Your task to perform on an android device: install app "VLC for Android" Image 0: 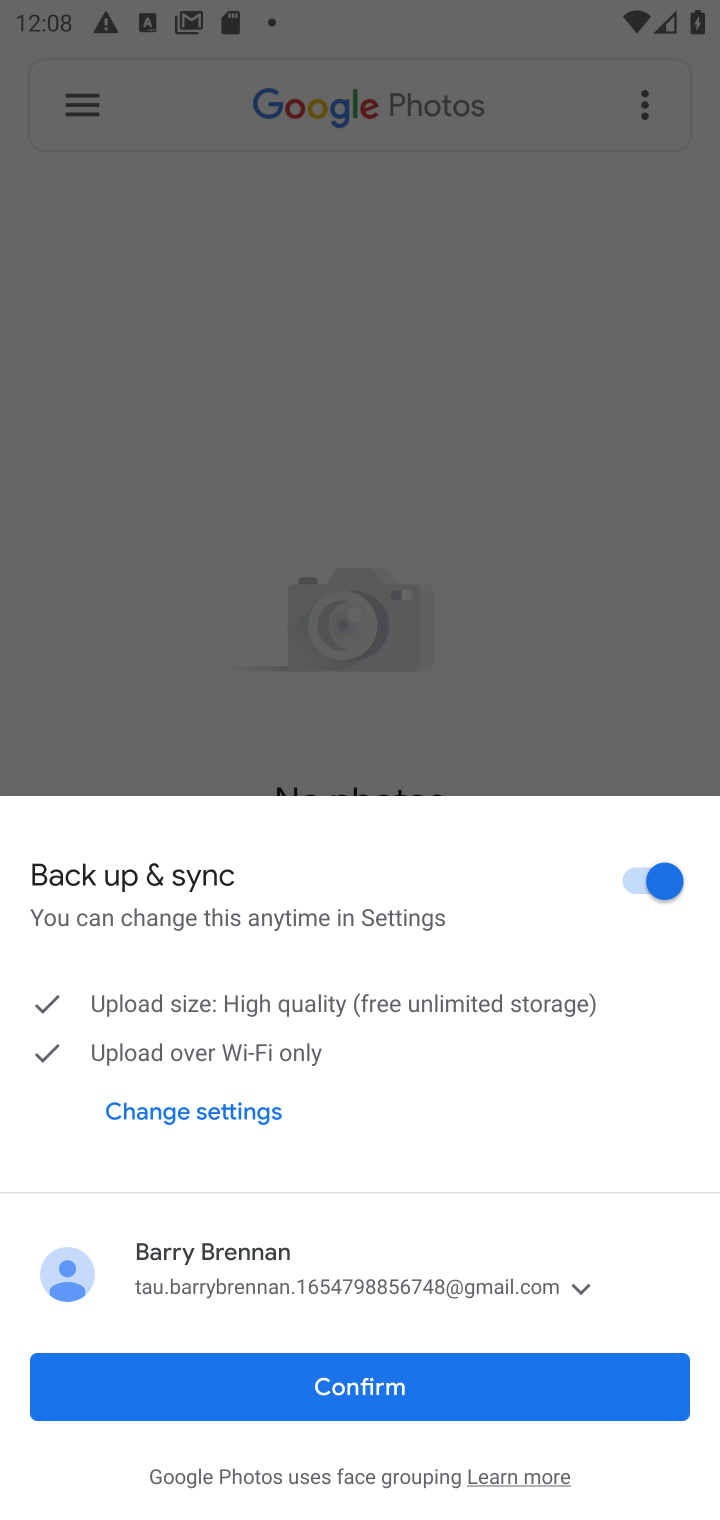
Step 0: press home button
Your task to perform on an android device: install app "VLC for Android" Image 1: 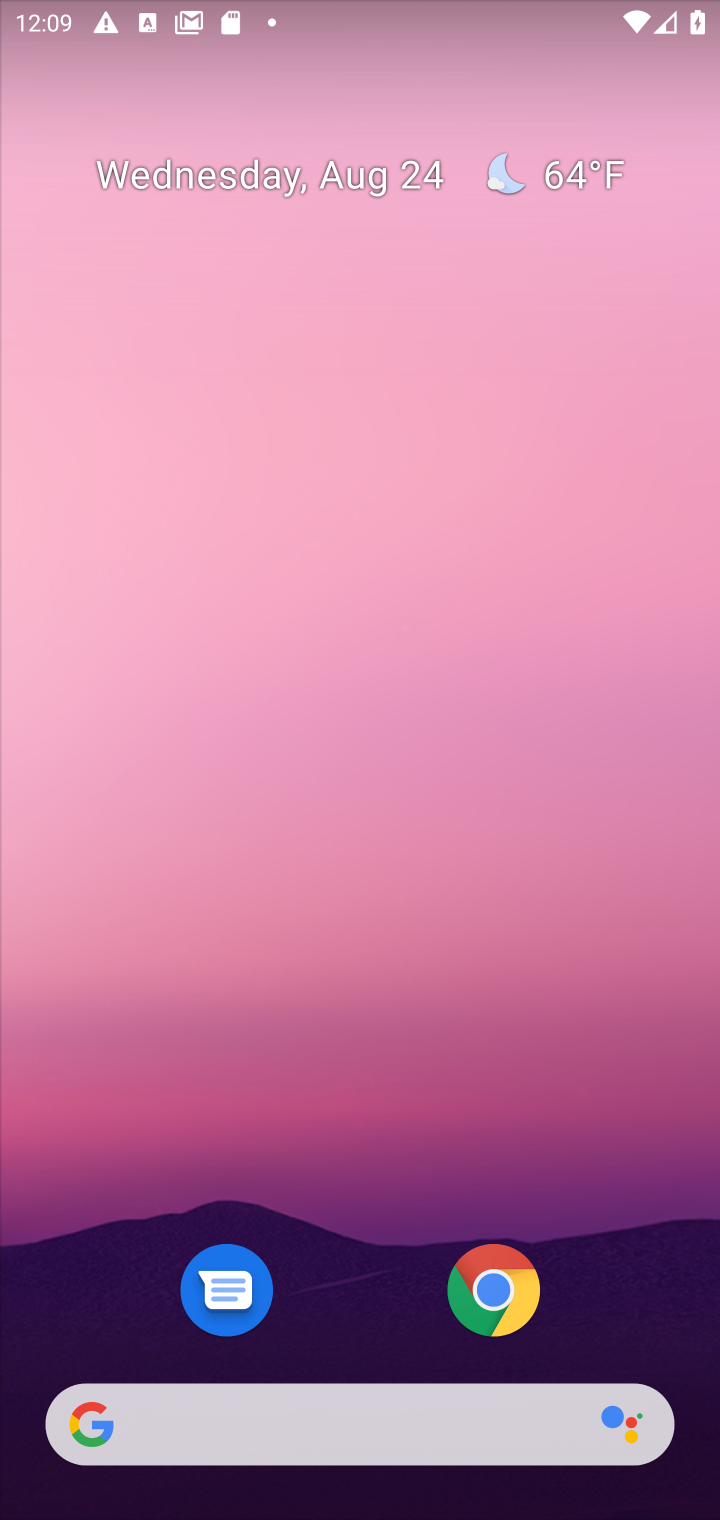
Step 1: drag from (350, 1221) to (431, 389)
Your task to perform on an android device: install app "VLC for Android" Image 2: 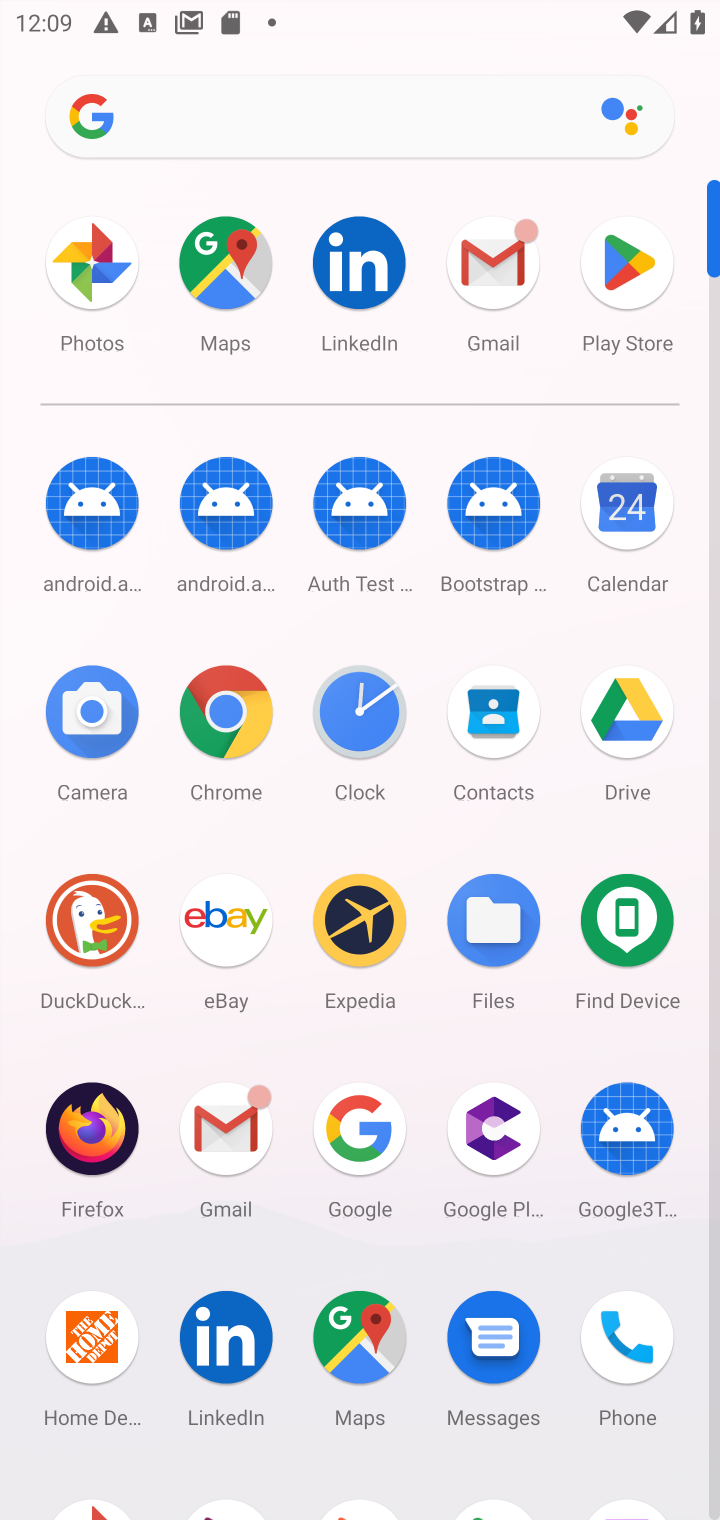
Step 2: click (618, 276)
Your task to perform on an android device: install app "VLC for Android" Image 3: 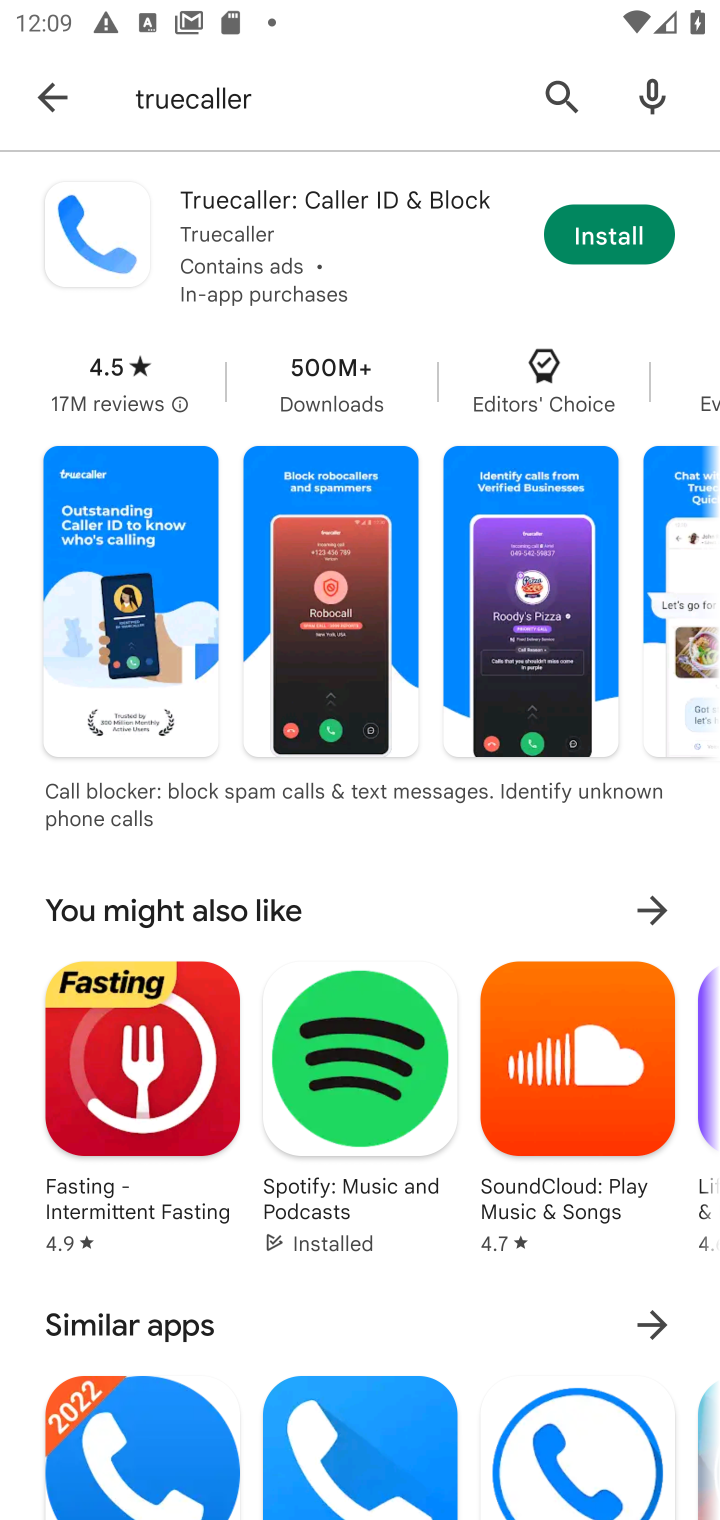
Step 3: click (547, 86)
Your task to perform on an android device: install app "VLC for Android" Image 4: 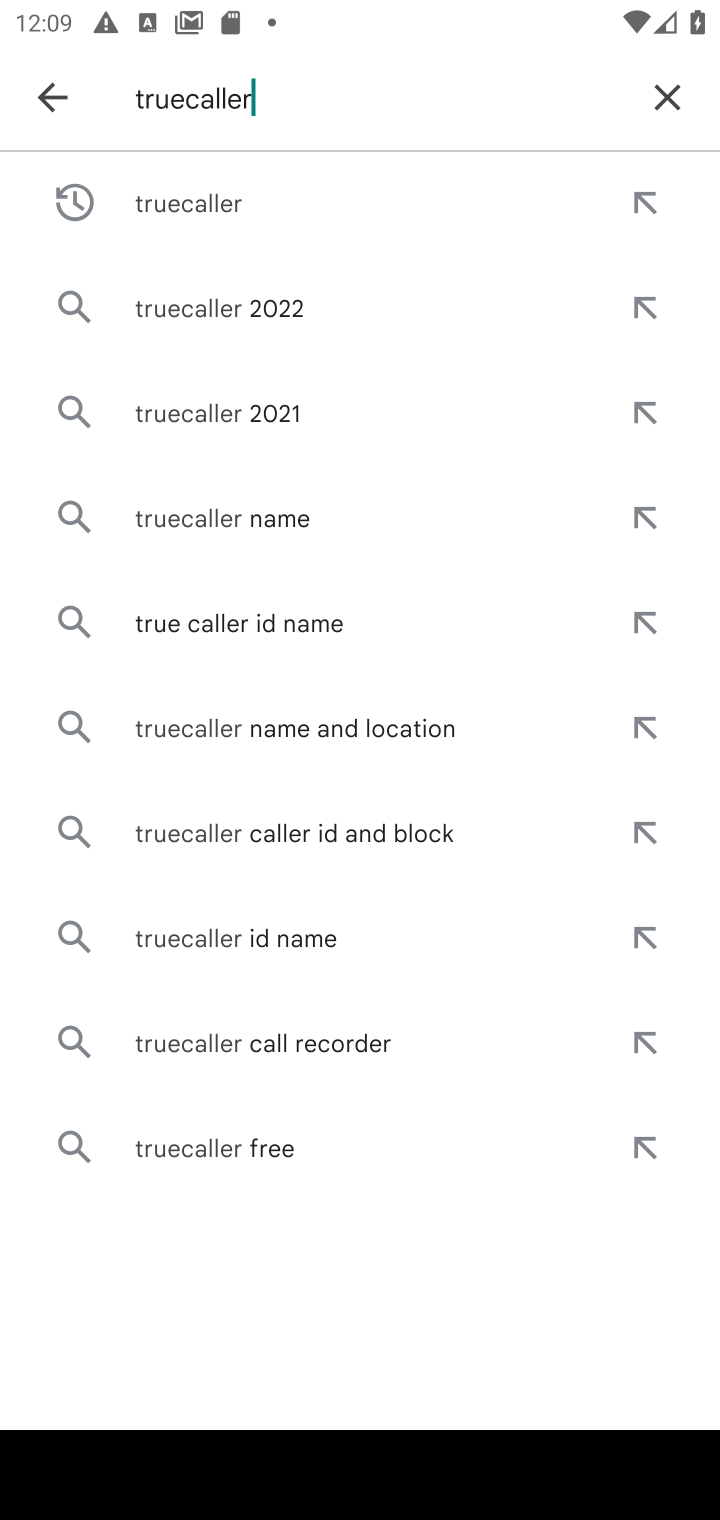
Step 4: click (668, 100)
Your task to perform on an android device: install app "VLC for Android" Image 5: 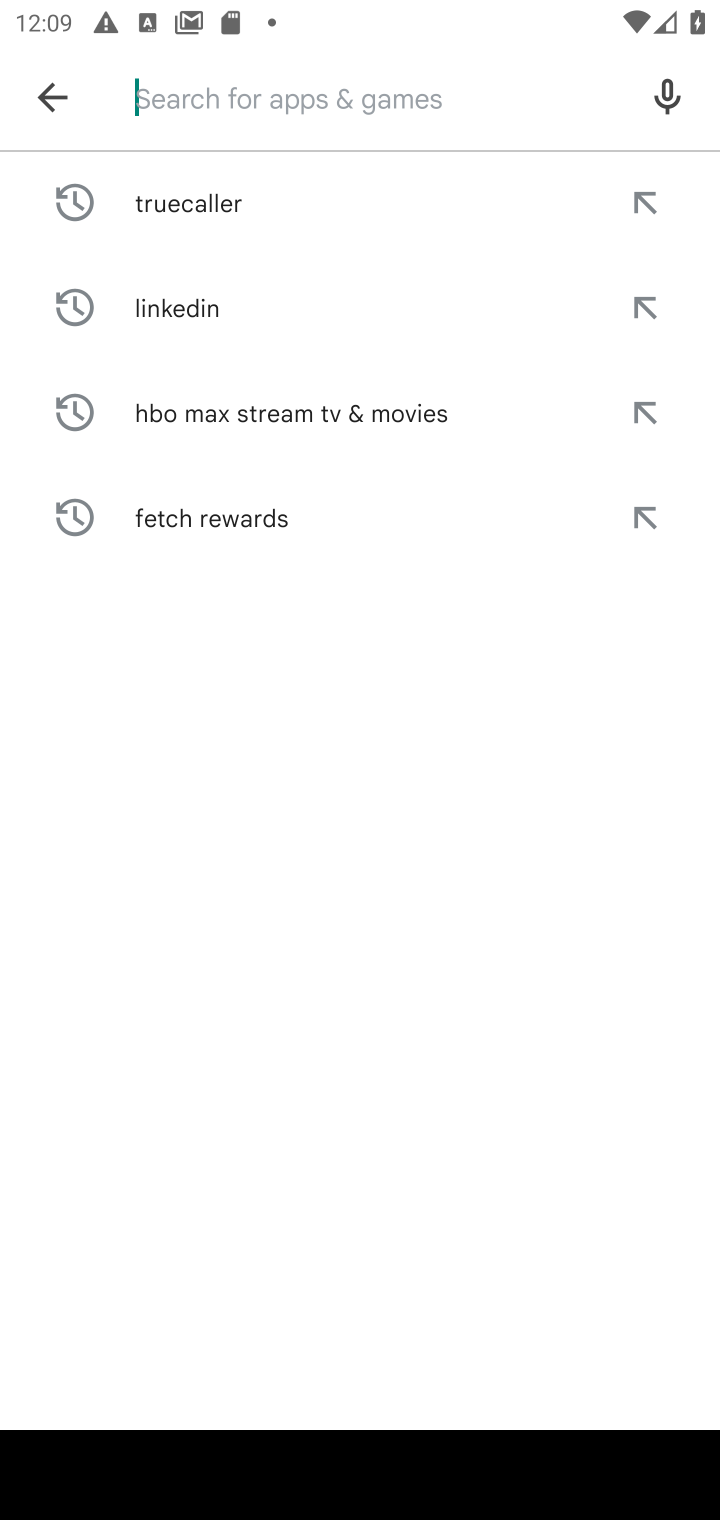
Step 5: type "VLC for Android"
Your task to perform on an android device: install app "VLC for Android" Image 6: 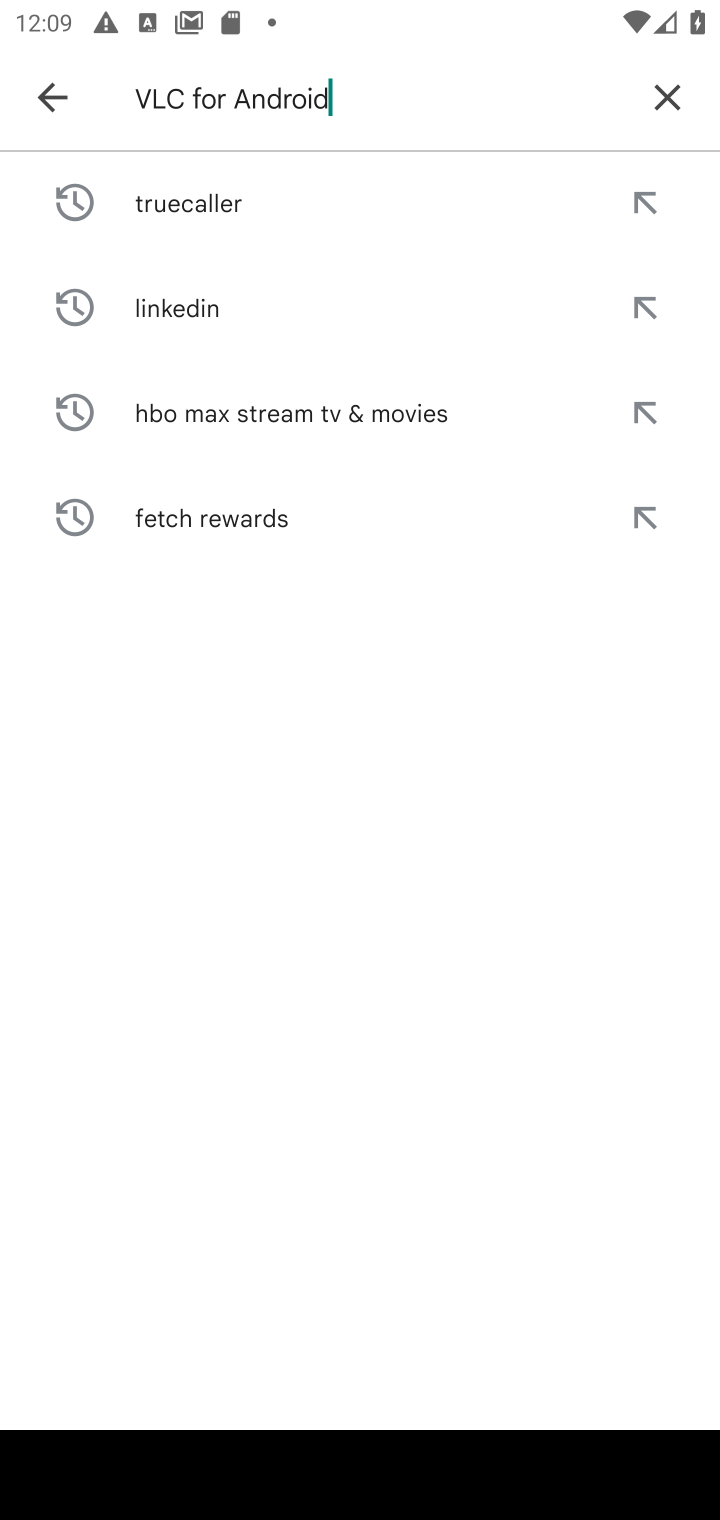
Step 6: type ""
Your task to perform on an android device: install app "VLC for Android" Image 7: 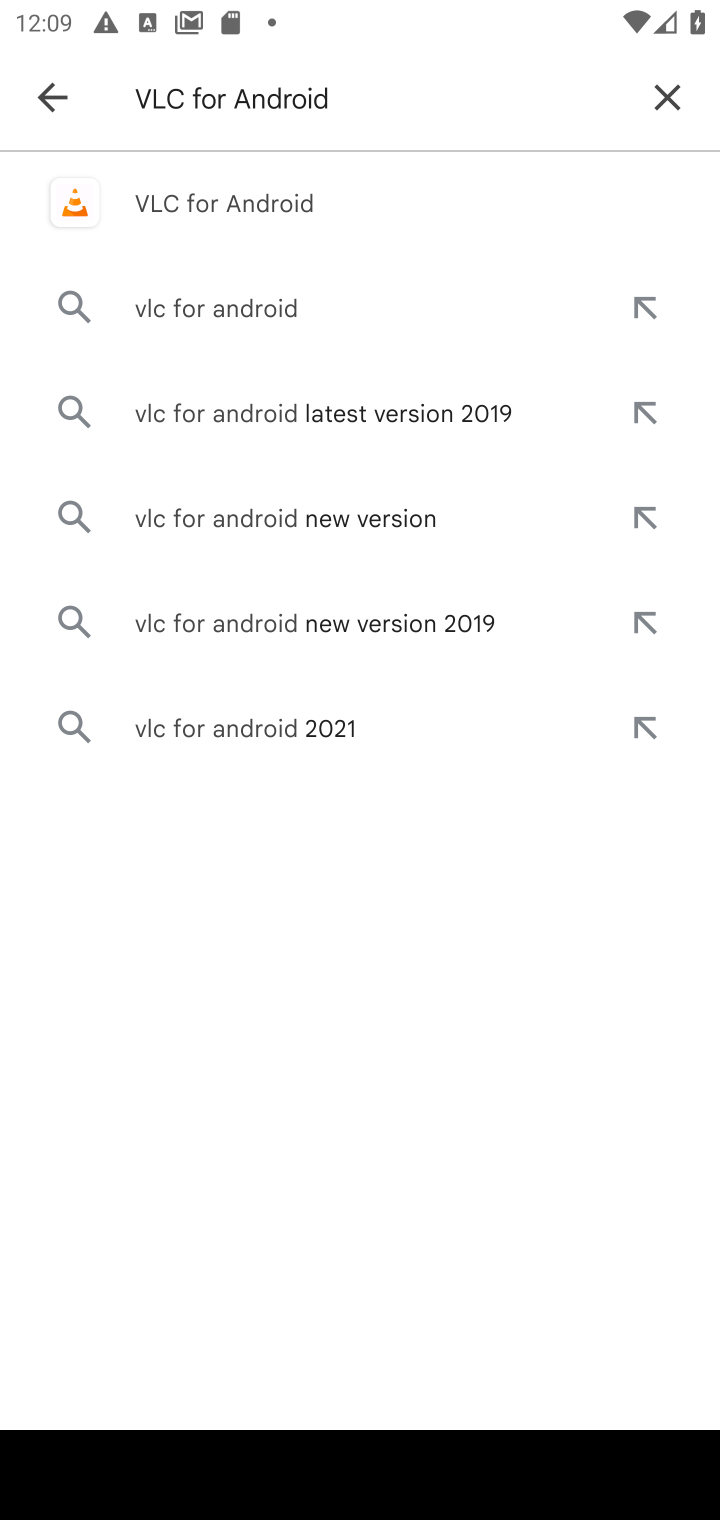
Step 7: click (276, 195)
Your task to perform on an android device: install app "VLC for Android" Image 8: 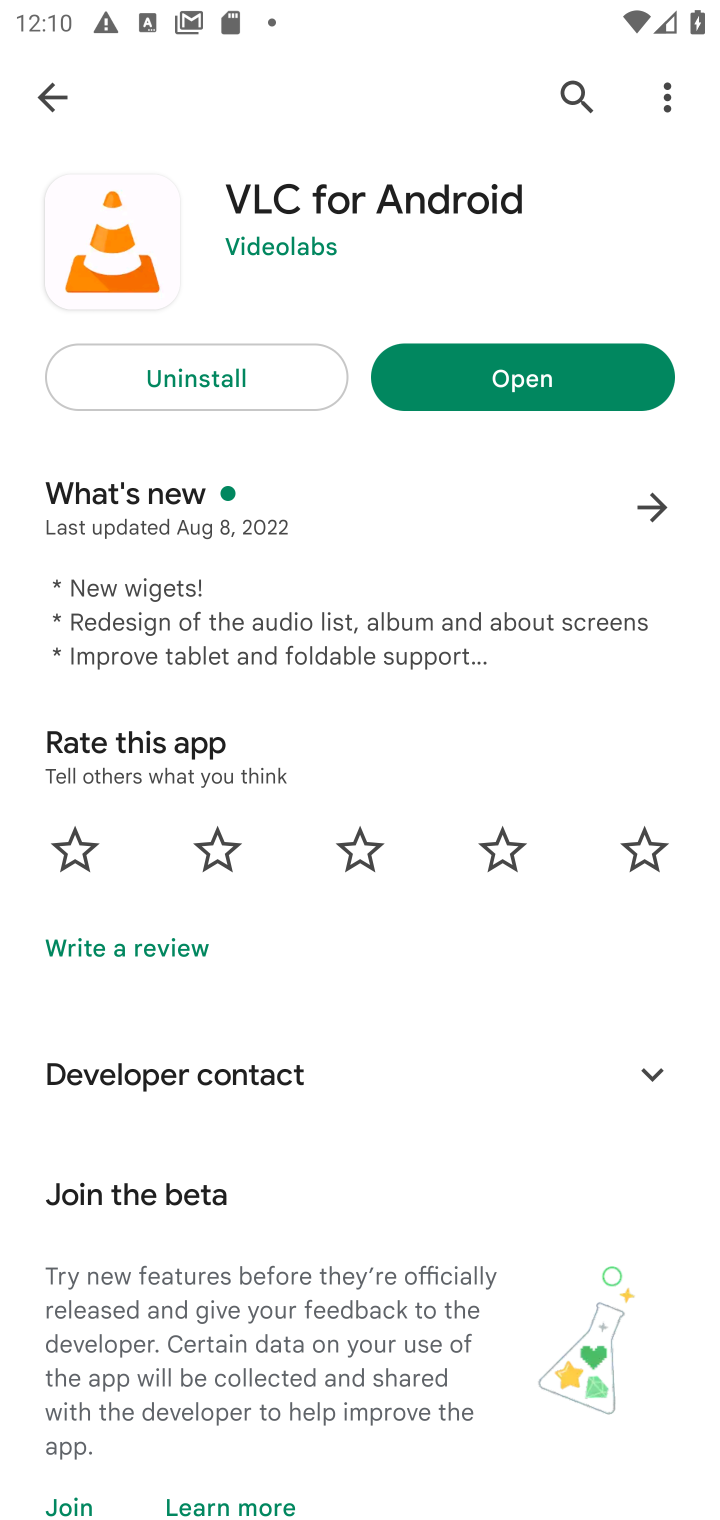
Step 8: task complete